Your task to perform on an android device: visit the assistant section in the google photos Image 0: 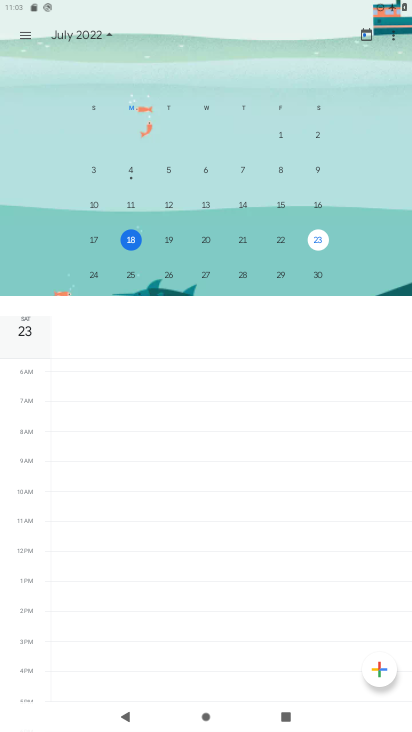
Step 0: press home button
Your task to perform on an android device: visit the assistant section in the google photos Image 1: 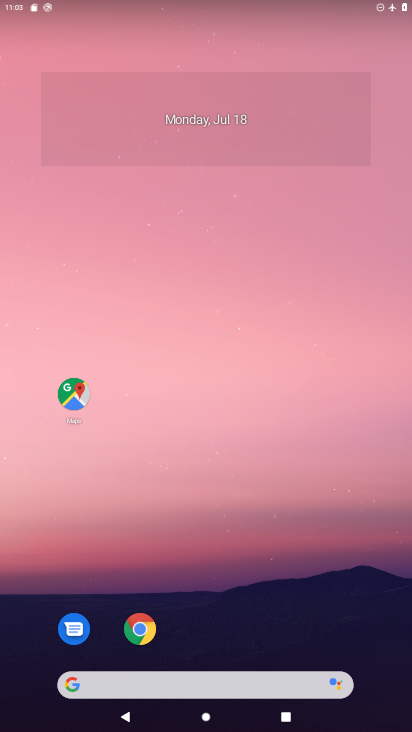
Step 1: drag from (247, 551) to (250, 15)
Your task to perform on an android device: visit the assistant section in the google photos Image 2: 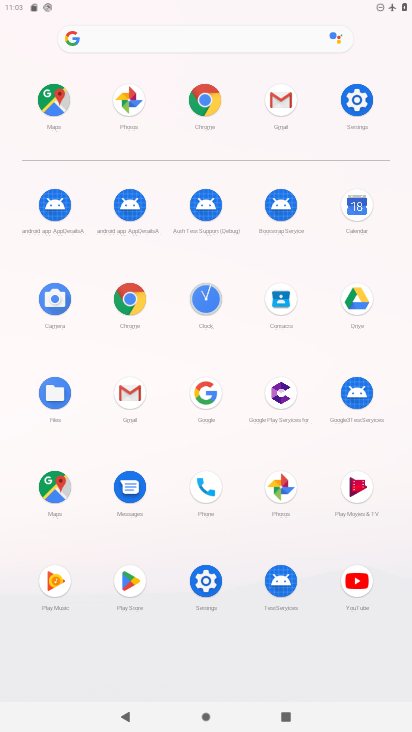
Step 2: click (127, 98)
Your task to perform on an android device: visit the assistant section in the google photos Image 3: 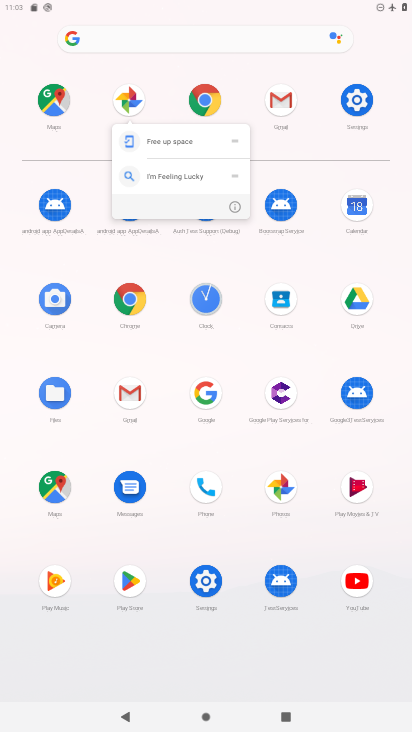
Step 3: click (127, 98)
Your task to perform on an android device: visit the assistant section in the google photos Image 4: 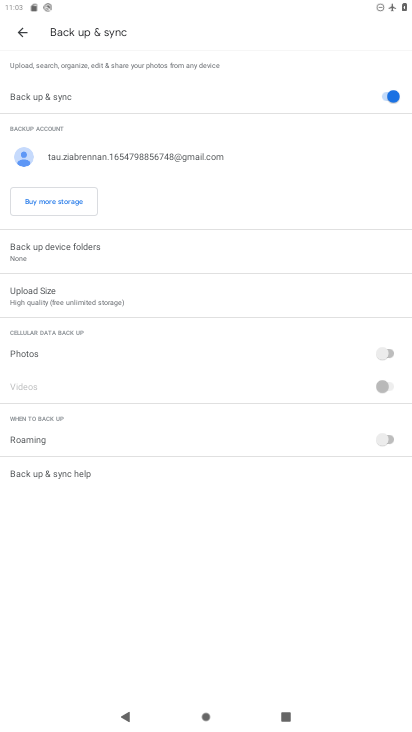
Step 4: click (13, 30)
Your task to perform on an android device: visit the assistant section in the google photos Image 5: 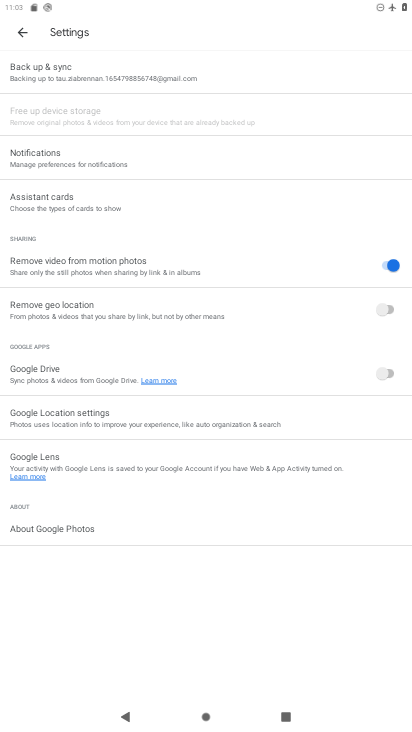
Step 5: click (26, 30)
Your task to perform on an android device: visit the assistant section in the google photos Image 6: 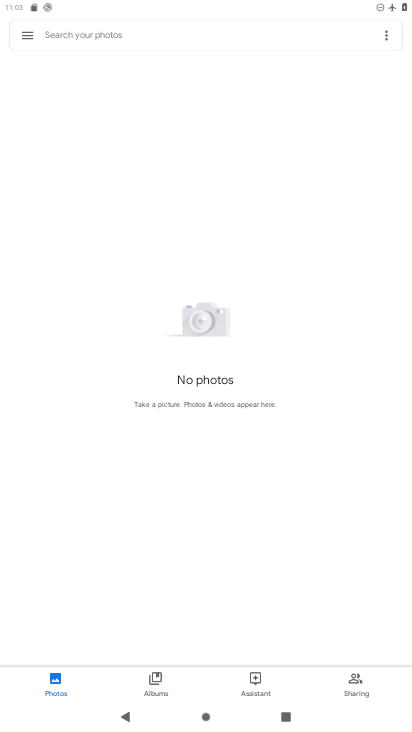
Step 6: click (258, 696)
Your task to perform on an android device: visit the assistant section in the google photos Image 7: 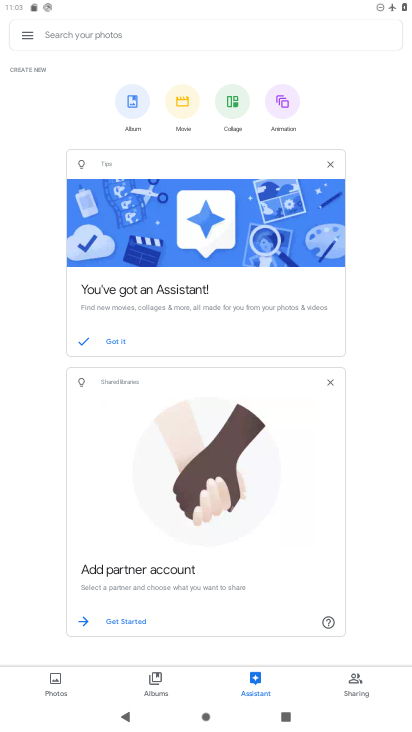
Step 7: task complete